Your task to perform on an android device: Show me recent news Image 0: 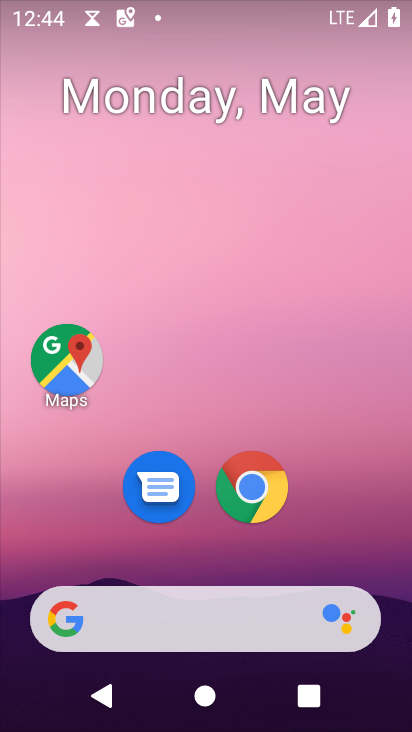
Step 0: click (144, 622)
Your task to perform on an android device: Show me recent news Image 1: 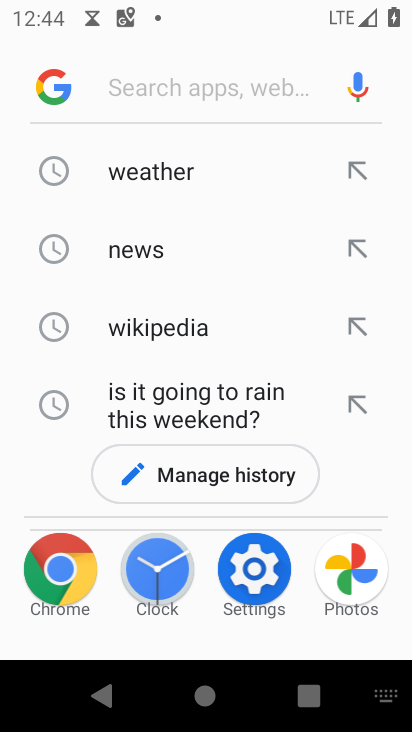
Step 1: type "recent news"
Your task to perform on an android device: Show me recent news Image 2: 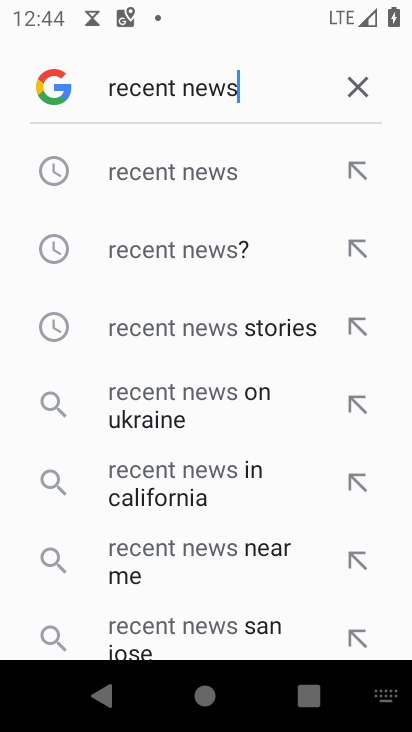
Step 2: click (179, 177)
Your task to perform on an android device: Show me recent news Image 3: 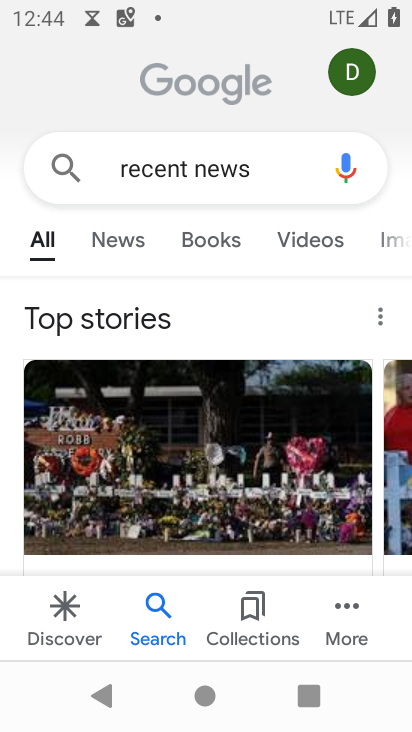
Step 3: click (117, 239)
Your task to perform on an android device: Show me recent news Image 4: 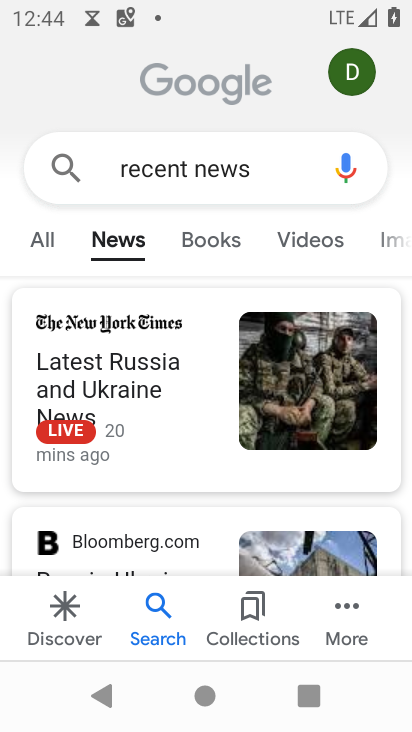
Step 4: task complete